Your task to perform on an android device: turn off smart reply in the gmail app Image 0: 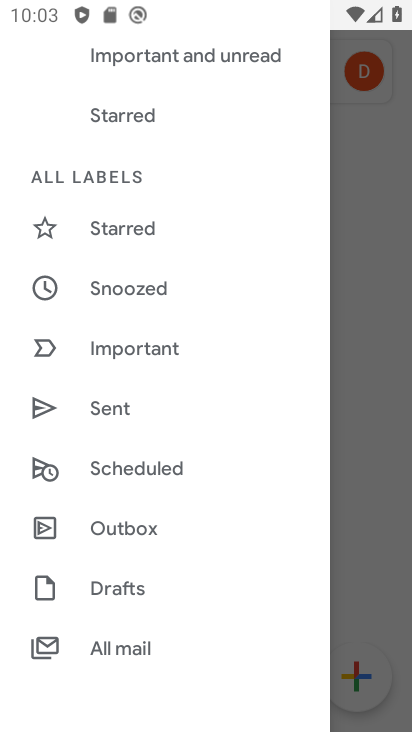
Step 0: drag from (159, 633) to (146, 230)
Your task to perform on an android device: turn off smart reply in the gmail app Image 1: 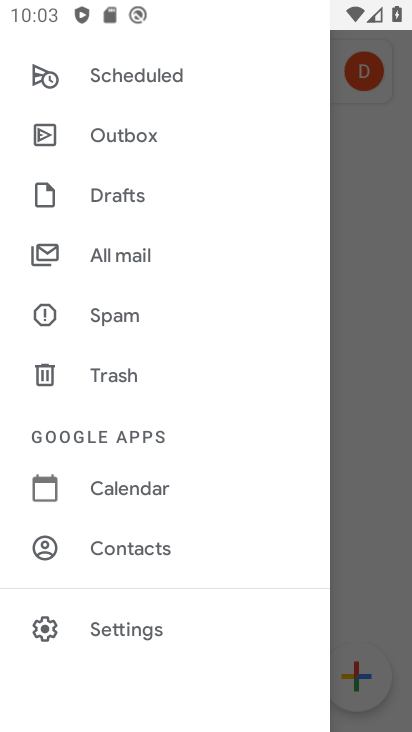
Step 1: click (147, 623)
Your task to perform on an android device: turn off smart reply in the gmail app Image 2: 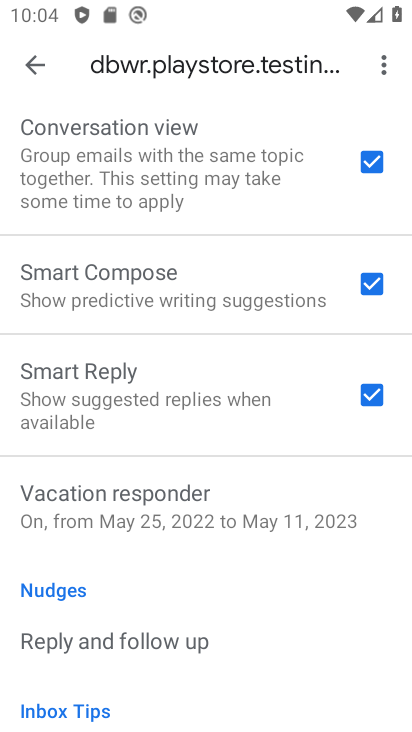
Step 2: click (294, 434)
Your task to perform on an android device: turn off smart reply in the gmail app Image 3: 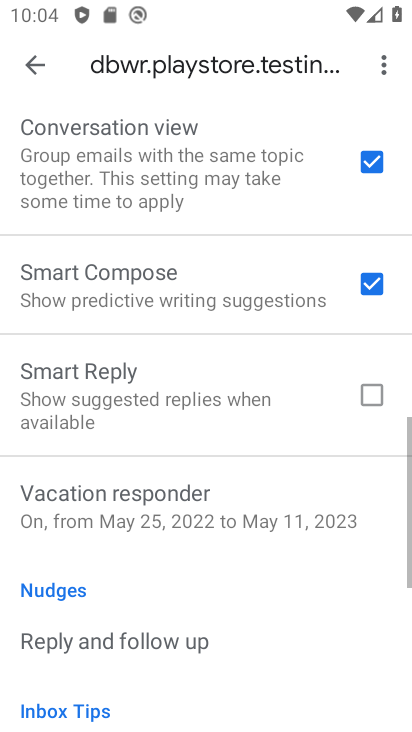
Step 3: task complete